Your task to perform on an android device: check out phone information Image 0: 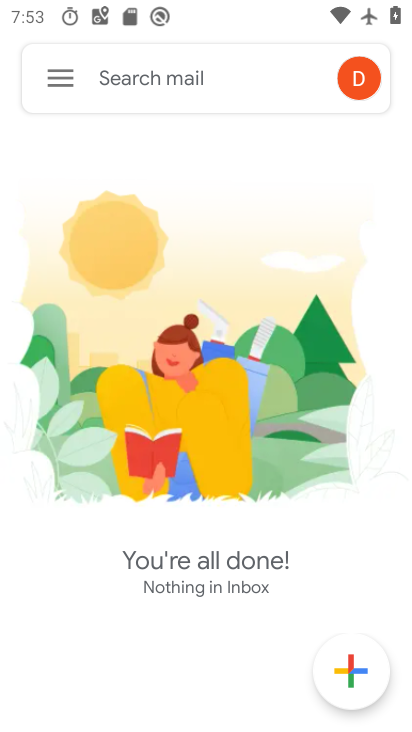
Step 0: press home button
Your task to perform on an android device: check out phone information Image 1: 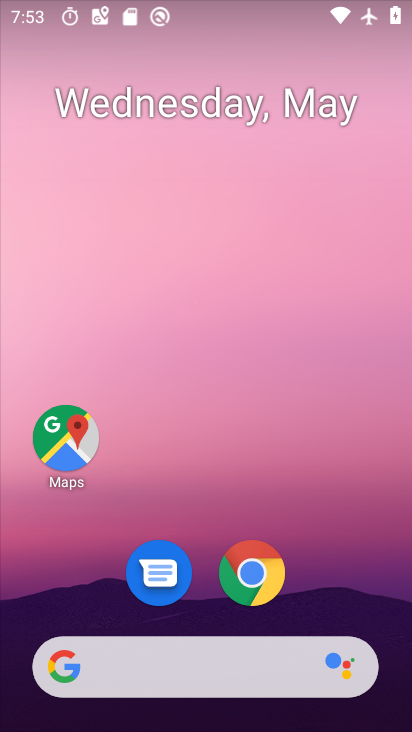
Step 1: drag from (198, 626) to (172, 28)
Your task to perform on an android device: check out phone information Image 2: 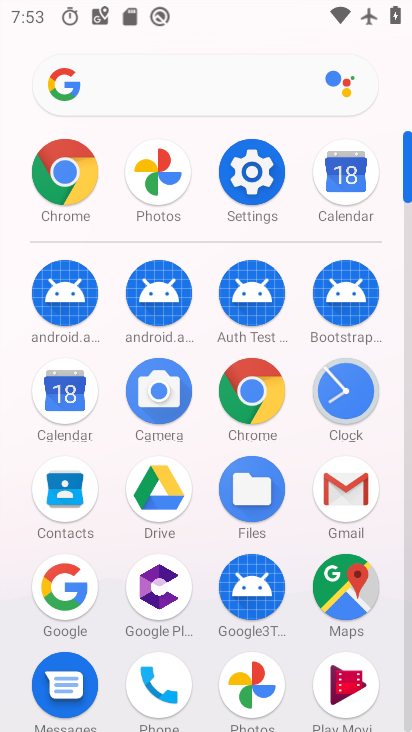
Step 2: click (242, 167)
Your task to perform on an android device: check out phone information Image 3: 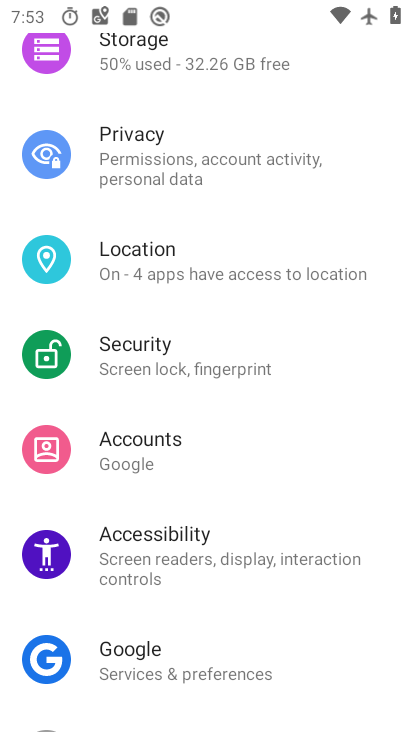
Step 3: drag from (238, 632) to (198, 274)
Your task to perform on an android device: check out phone information Image 4: 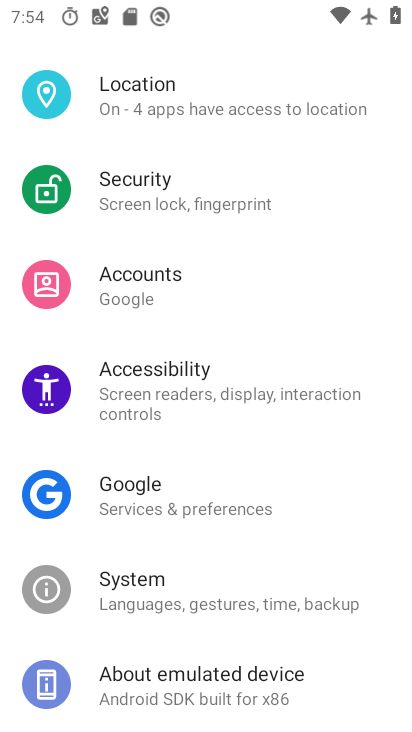
Step 4: click (171, 669)
Your task to perform on an android device: check out phone information Image 5: 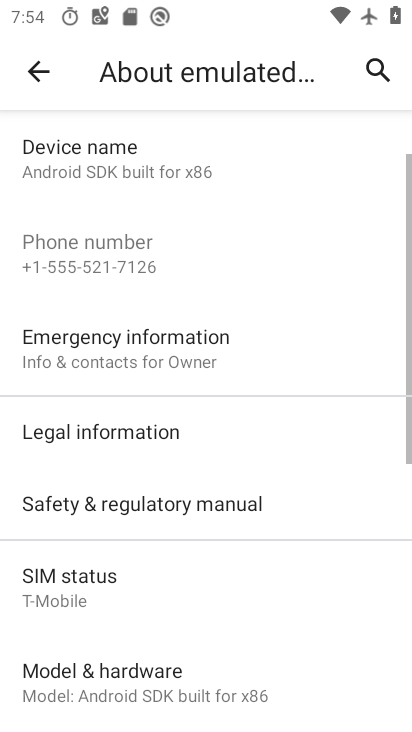
Step 5: task complete